Your task to perform on an android device: What's the weather? Image 0: 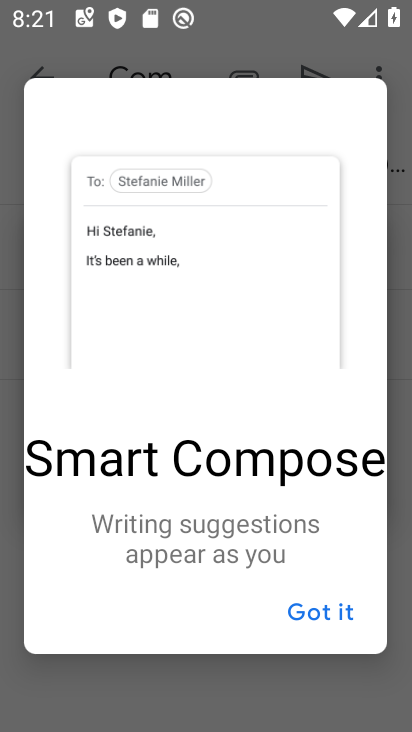
Step 0: press home button
Your task to perform on an android device: What's the weather? Image 1: 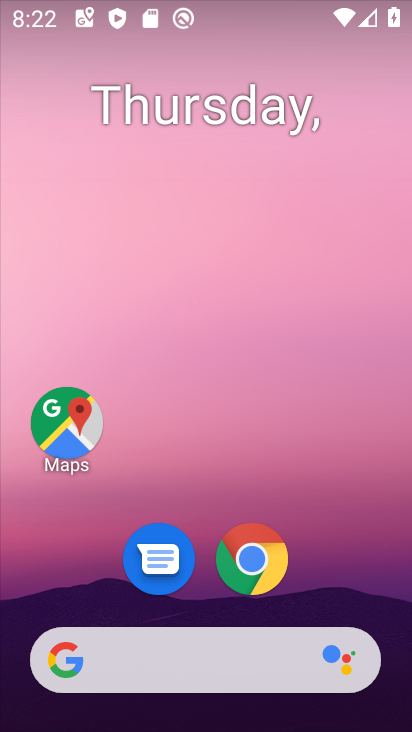
Step 1: click (196, 654)
Your task to perform on an android device: What's the weather? Image 2: 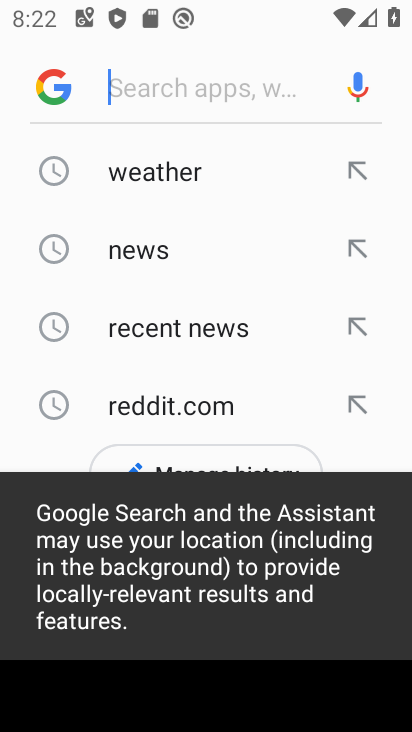
Step 2: click (157, 159)
Your task to perform on an android device: What's the weather? Image 3: 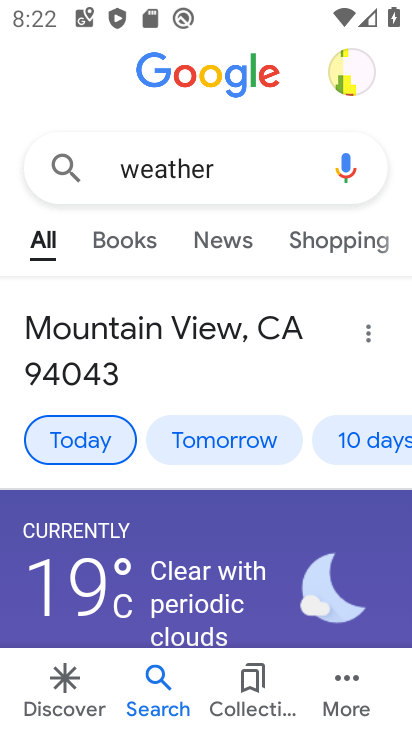
Step 3: task complete